Your task to perform on an android device: Do I have any events this weekend? Image 0: 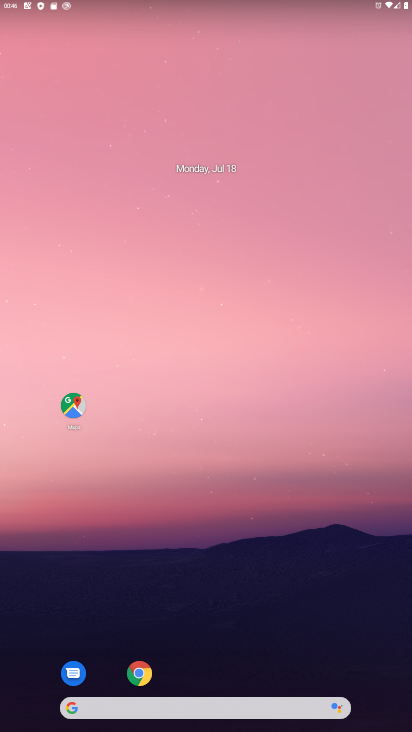
Step 0: drag from (288, 655) to (259, 88)
Your task to perform on an android device: Do I have any events this weekend? Image 1: 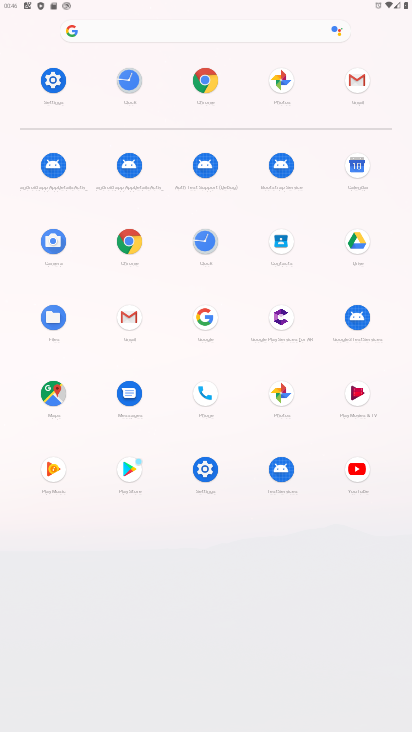
Step 1: click (143, 35)
Your task to perform on an android device: Do I have any events this weekend? Image 2: 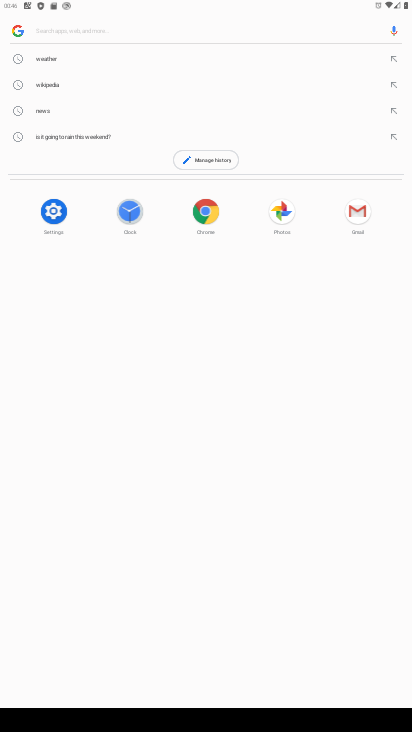
Step 2: type "weekend"
Your task to perform on an android device: Do I have any events this weekend? Image 3: 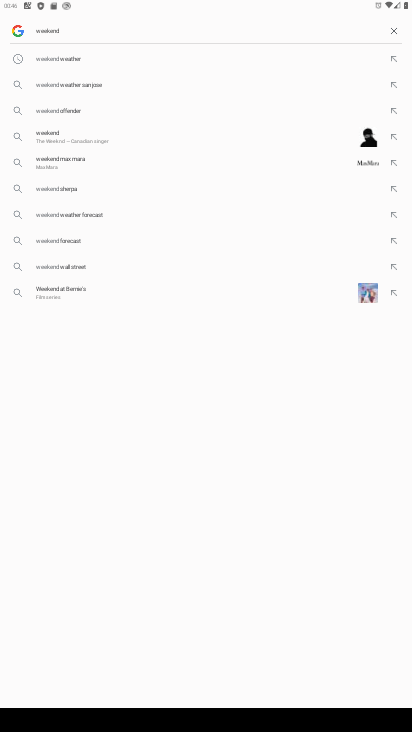
Step 3: click (109, 69)
Your task to perform on an android device: Do I have any events this weekend? Image 4: 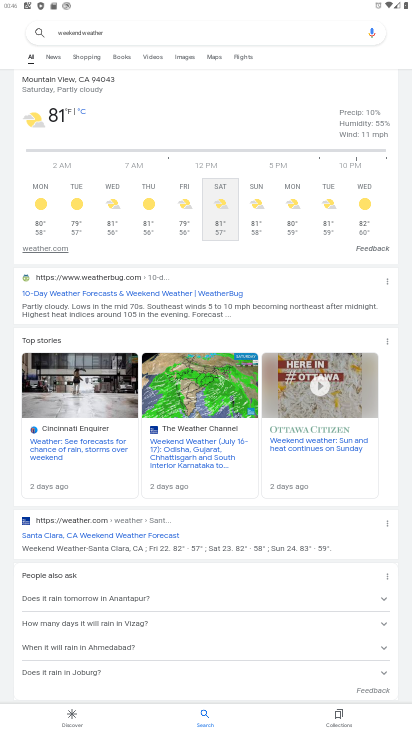
Step 4: task complete